Your task to perform on an android device: turn on the 12-hour format for clock Image 0: 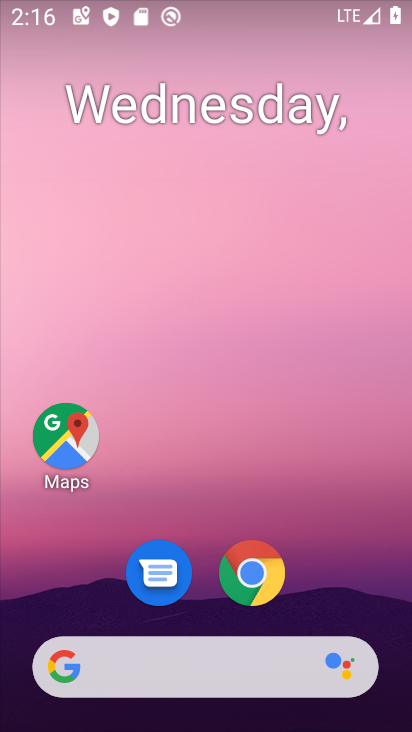
Step 0: drag from (204, 596) to (182, 347)
Your task to perform on an android device: turn on the 12-hour format for clock Image 1: 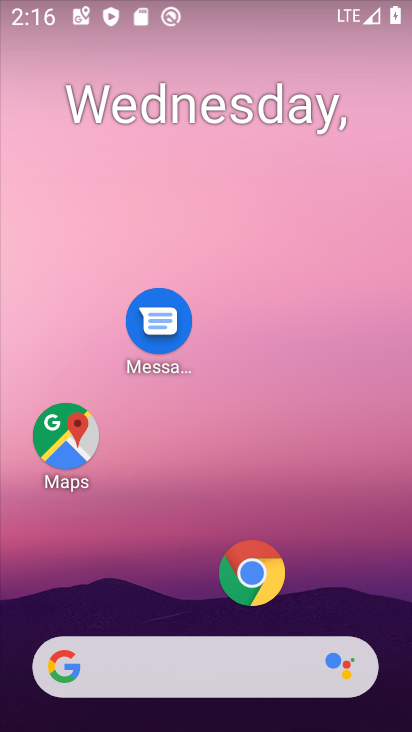
Step 1: drag from (182, 557) to (216, 111)
Your task to perform on an android device: turn on the 12-hour format for clock Image 2: 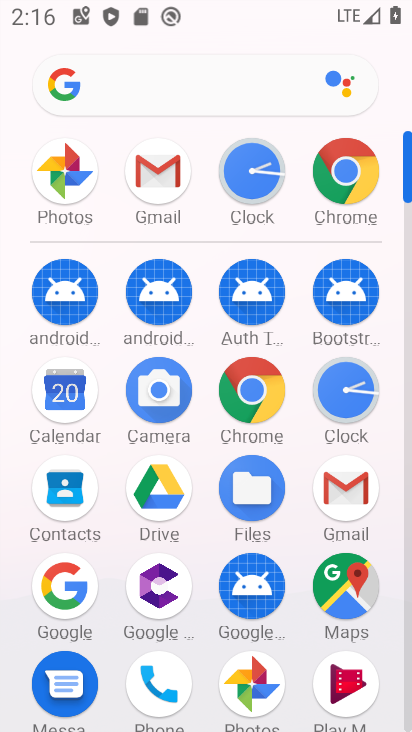
Step 2: click (353, 390)
Your task to perform on an android device: turn on the 12-hour format for clock Image 3: 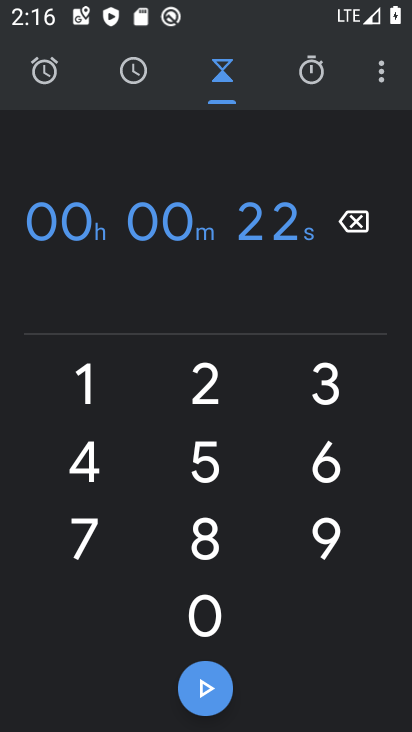
Step 3: click (375, 76)
Your task to perform on an android device: turn on the 12-hour format for clock Image 4: 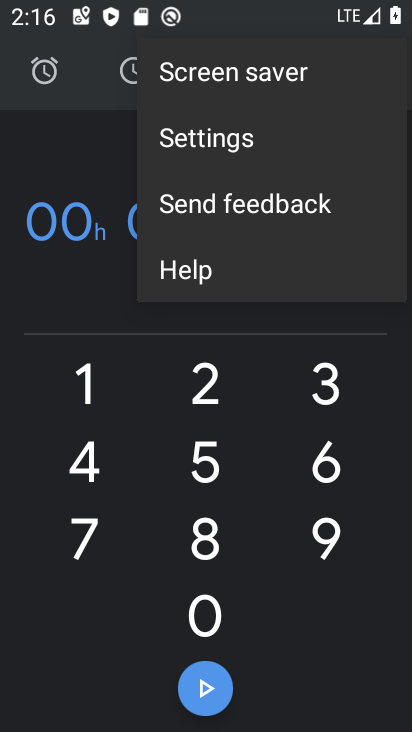
Step 4: click (231, 139)
Your task to perform on an android device: turn on the 12-hour format for clock Image 5: 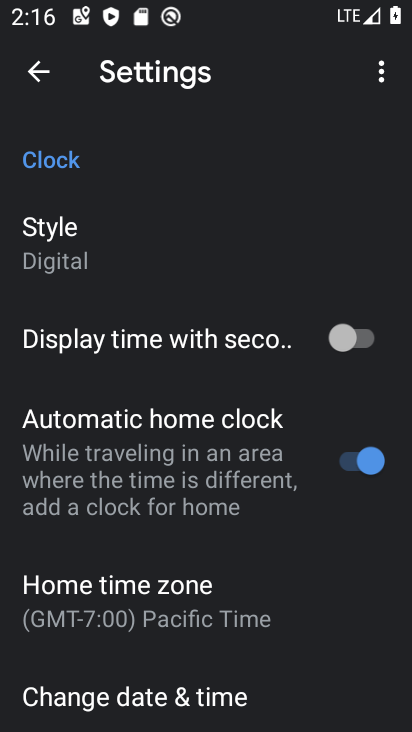
Step 5: drag from (195, 604) to (207, 453)
Your task to perform on an android device: turn on the 12-hour format for clock Image 6: 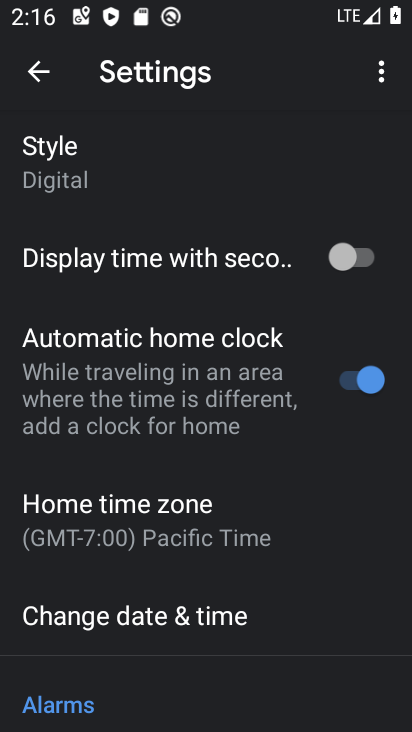
Step 6: click (94, 605)
Your task to perform on an android device: turn on the 12-hour format for clock Image 7: 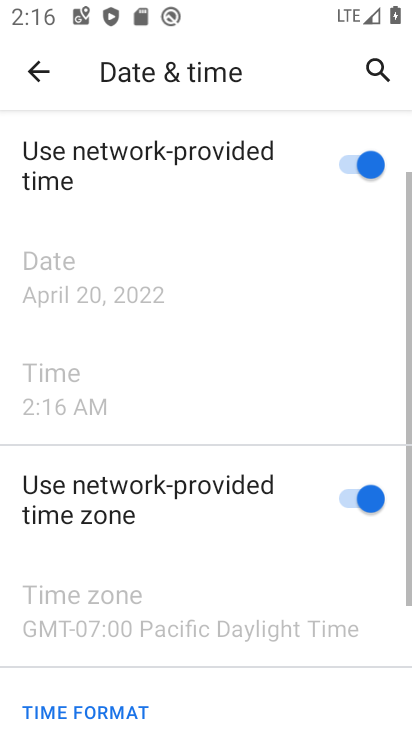
Step 7: task complete